Your task to perform on an android device: Show me popular videos on Youtube Image 0: 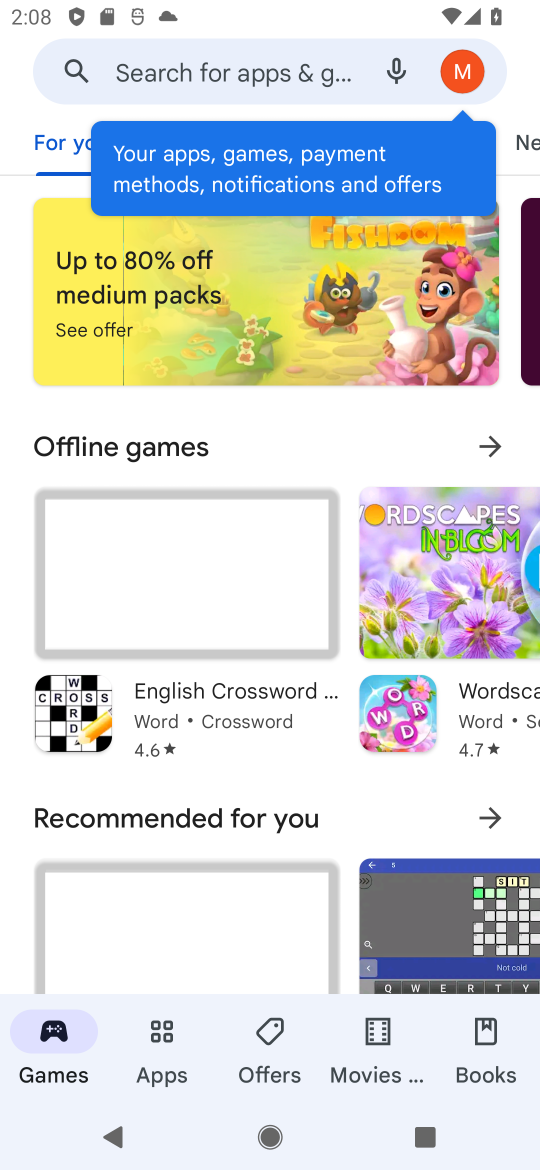
Step 0: task complete